Your task to perform on an android device: check out phone information Image 0: 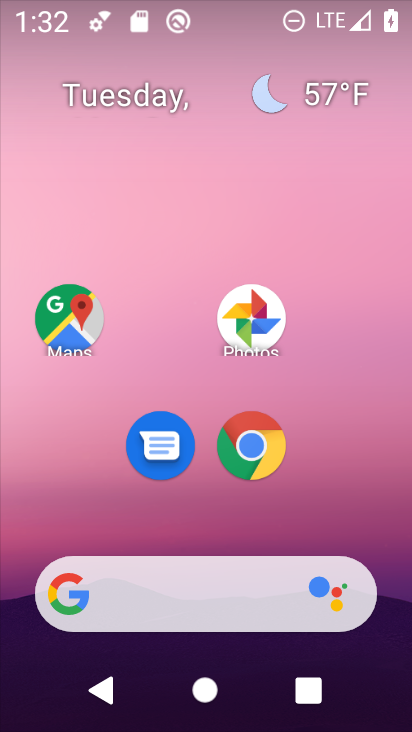
Step 0: drag from (392, 551) to (399, 278)
Your task to perform on an android device: check out phone information Image 1: 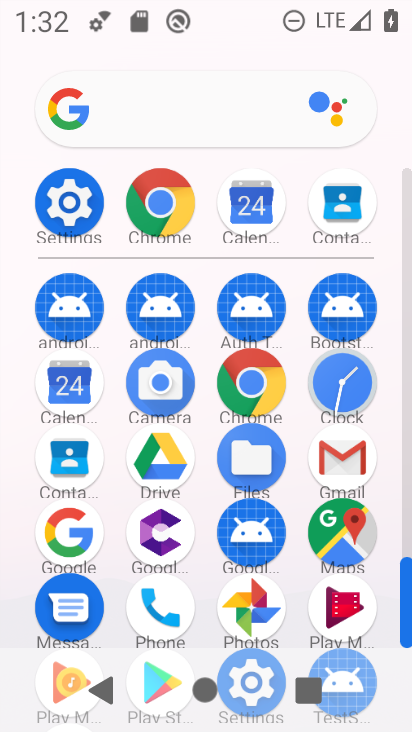
Step 1: drag from (386, 539) to (386, 318)
Your task to perform on an android device: check out phone information Image 2: 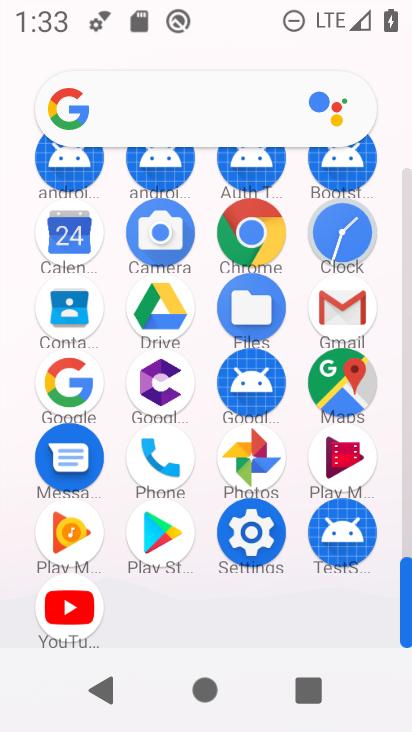
Step 2: click (168, 471)
Your task to perform on an android device: check out phone information Image 3: 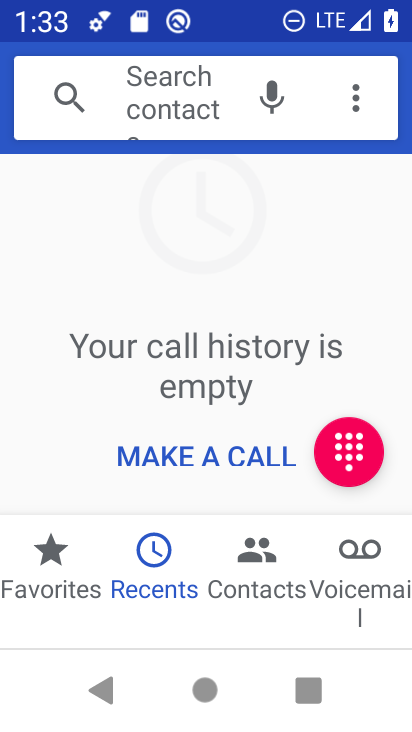
Step 3: click (57, 567)
Your task to perform on an android device: check out phone information Image 4: 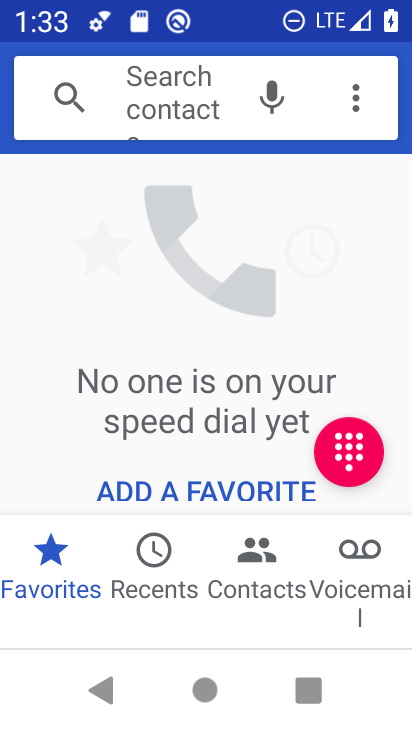
Step 4: click (161, 562)
Your task to perform on an android device: check out phone information Image 5: 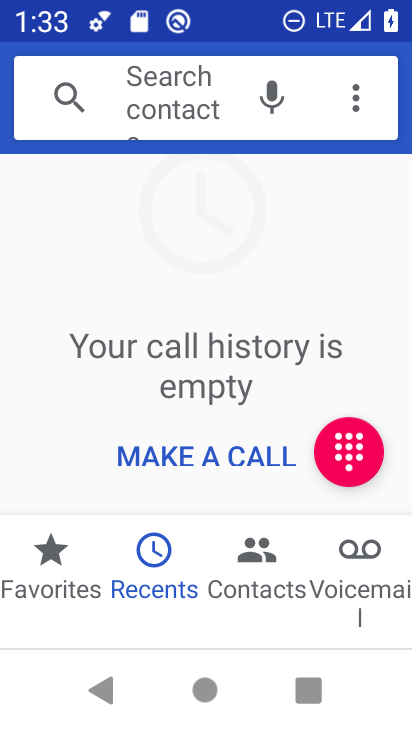
Step 5: click (60, 563)
Your task to perform on an android device: check out phone information Image 6: 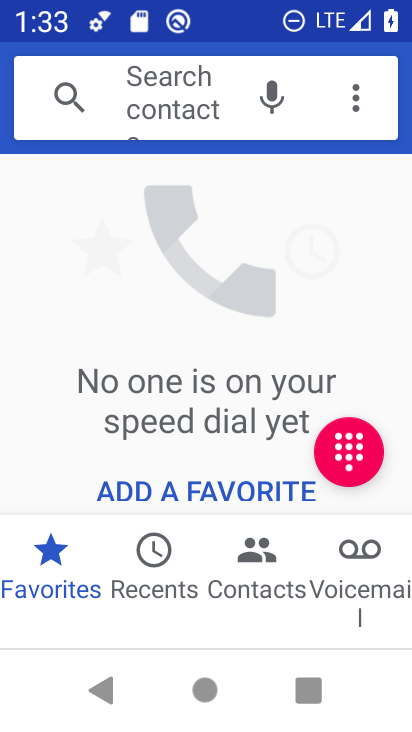
Step 6: click (142, 570)
Your task to perform on an android device: check out phone information Image 7: 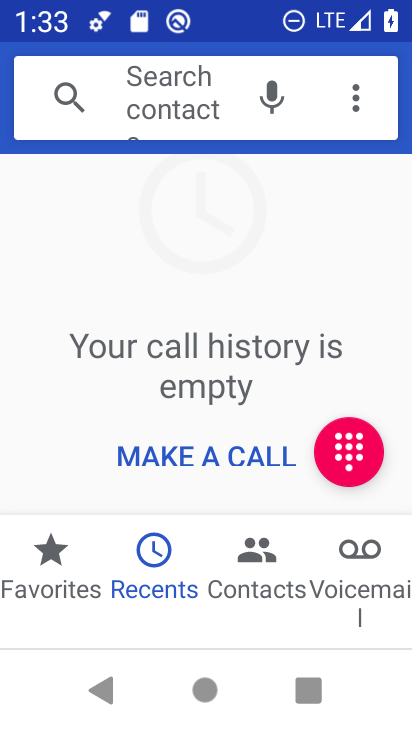
Step 7: task complete